Your task to perform on an android device: set the stopwatch Image 0: 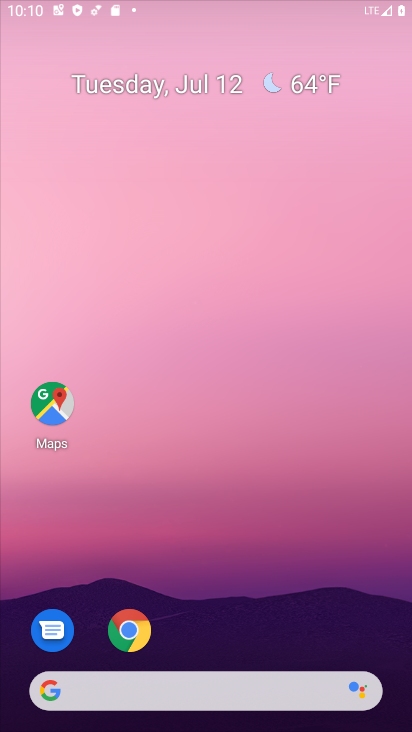
Step 0: drag from (294, 606) to (296, 3)
Your task to perform on an android device: set the stopwatch Image 1: 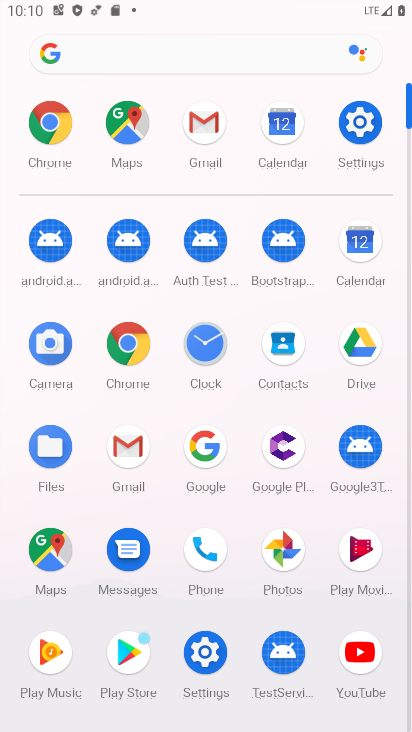
Step 1: click (208, 338)
Your task to perform on an android device: set the stopwatch Image 2: 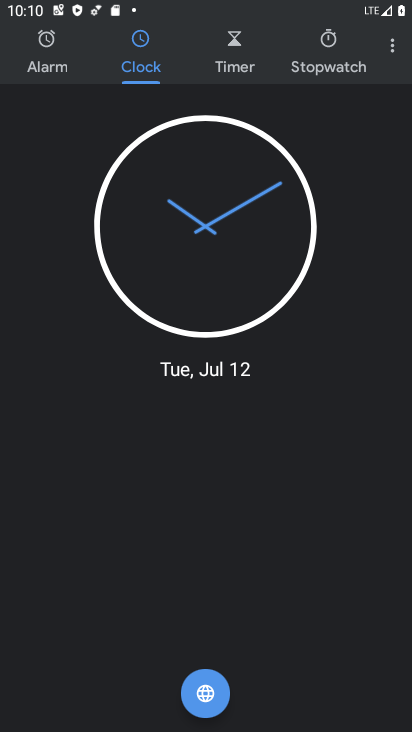
Step 2: click (339, 42)
Your task to perform on an android device: set the stopwatch Image 3: 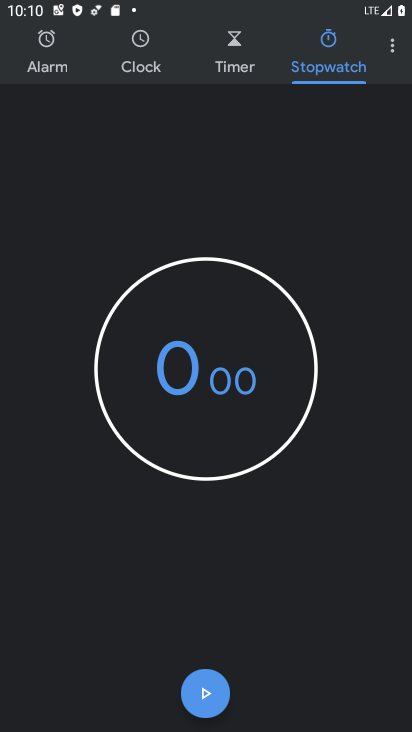
Step 3: click (203, 709)
Your task to perform on an android device: set the stopwatch Image 4: 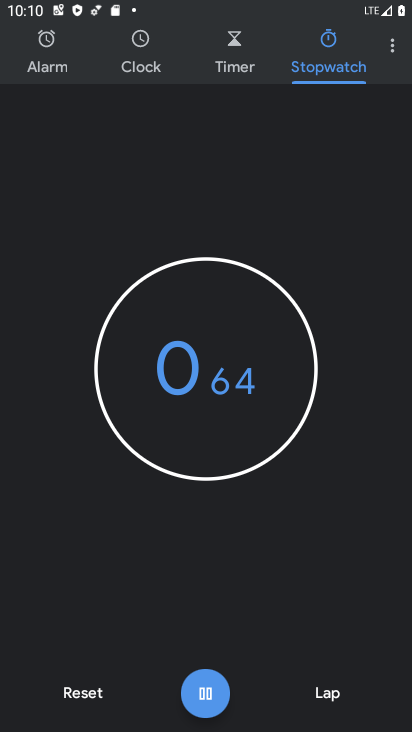
Step 4: task complete